Your task to perform on an android device: turn on sleep mode Image 0: 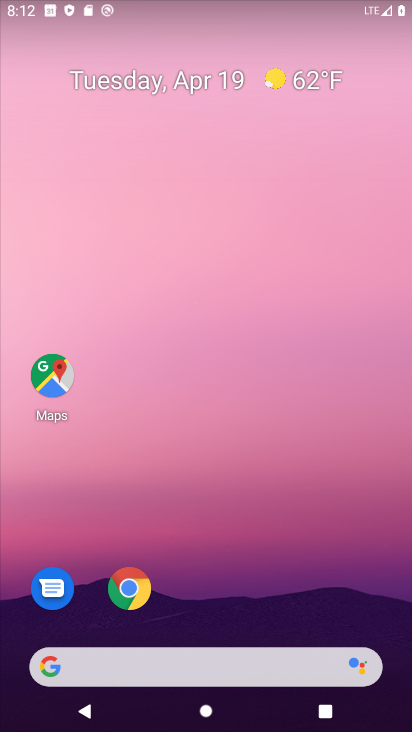
Step 0: drag from (217, 593) to (211, 143)
Your task to perform on an android device: turn on sleep mode Image 1: 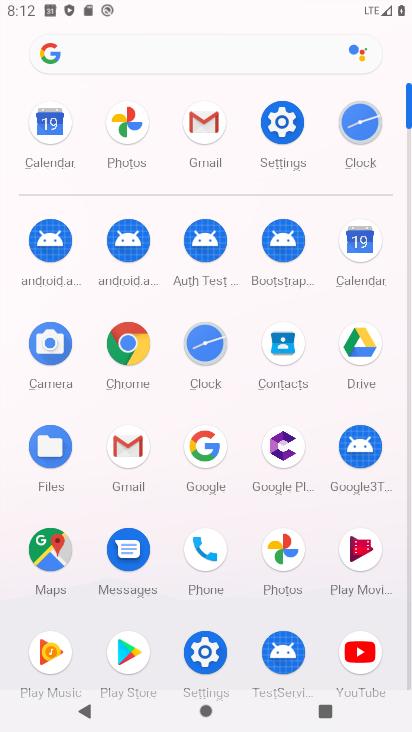
Step 1: click (289, 123)
Your task to perform on an android device: turn on sleep mode Image 2: 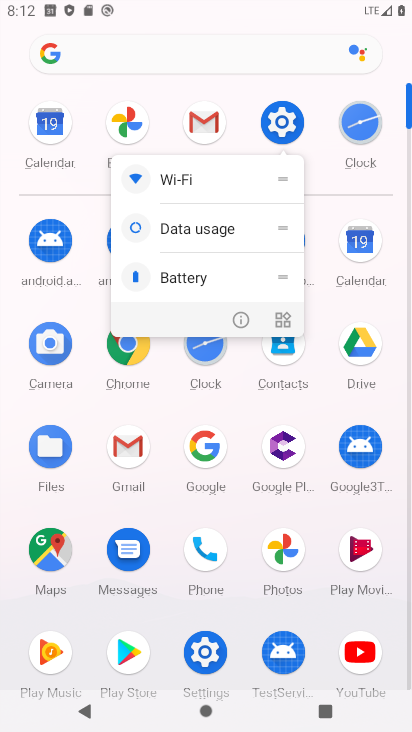
Step 2: click (284, 124)
Your task to perform on an android device: turn on sleep mode Image 3: 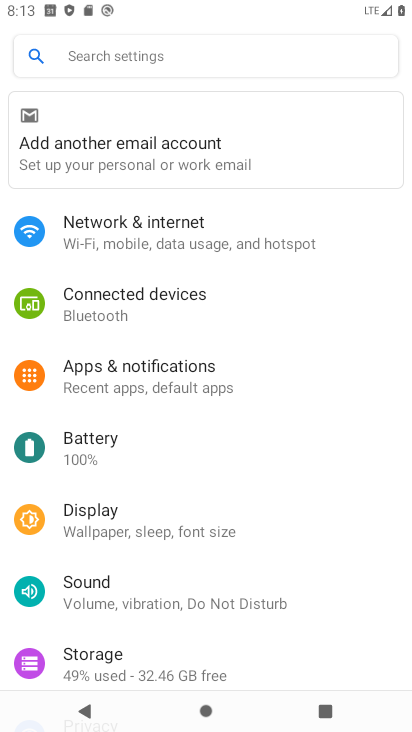
Step 3: click (86, 520)
Your task to perform on an android device: turn on sleep mode Image 4: 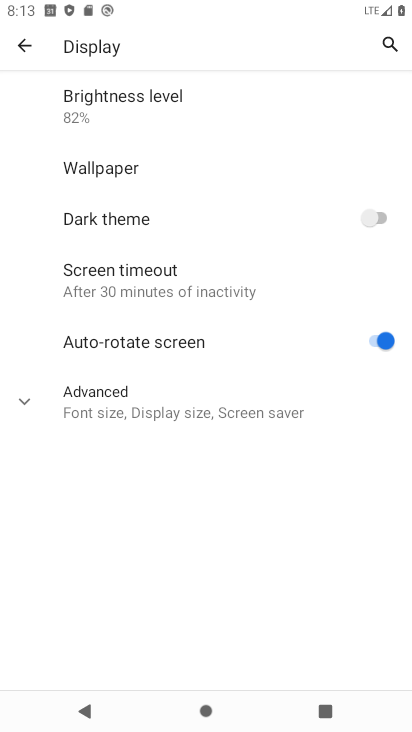
Step 4: click (31, 47)
Your task to perform on an android device: turn on sleep mode Image 5: 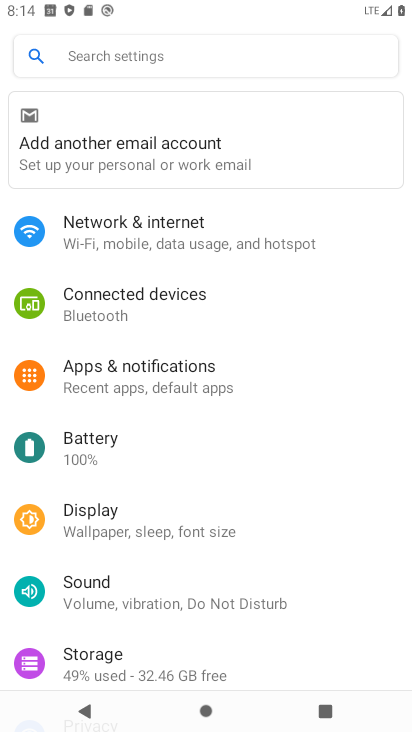
Step 5: task complete